Your task to perform on an android device: open a new tab in the chrome app Image 0: 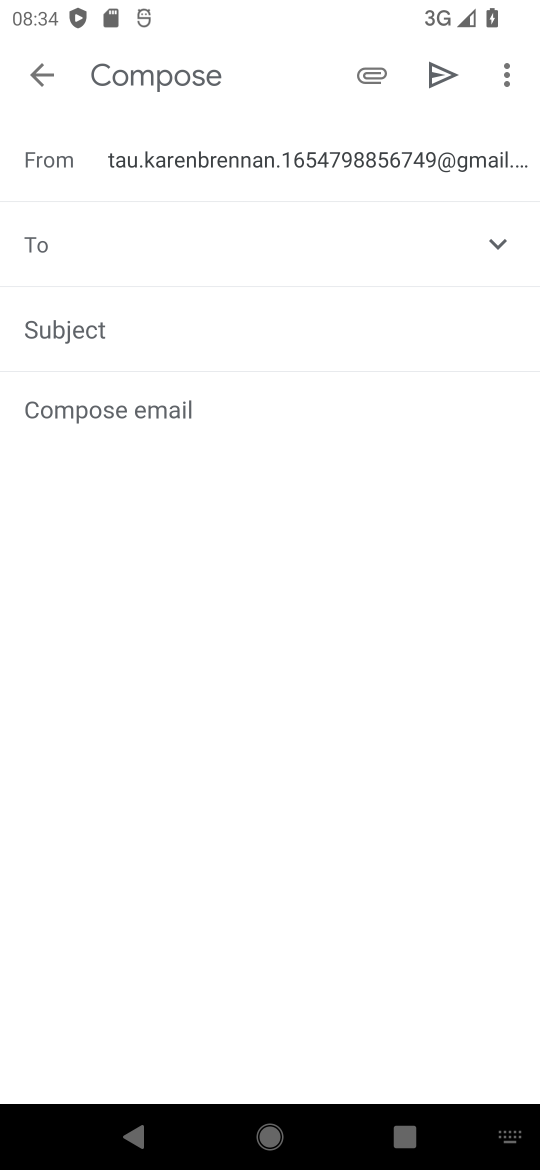
Step 0: press home button
Your task to perform on an android device: open a new tab in the chrome app Image 1: 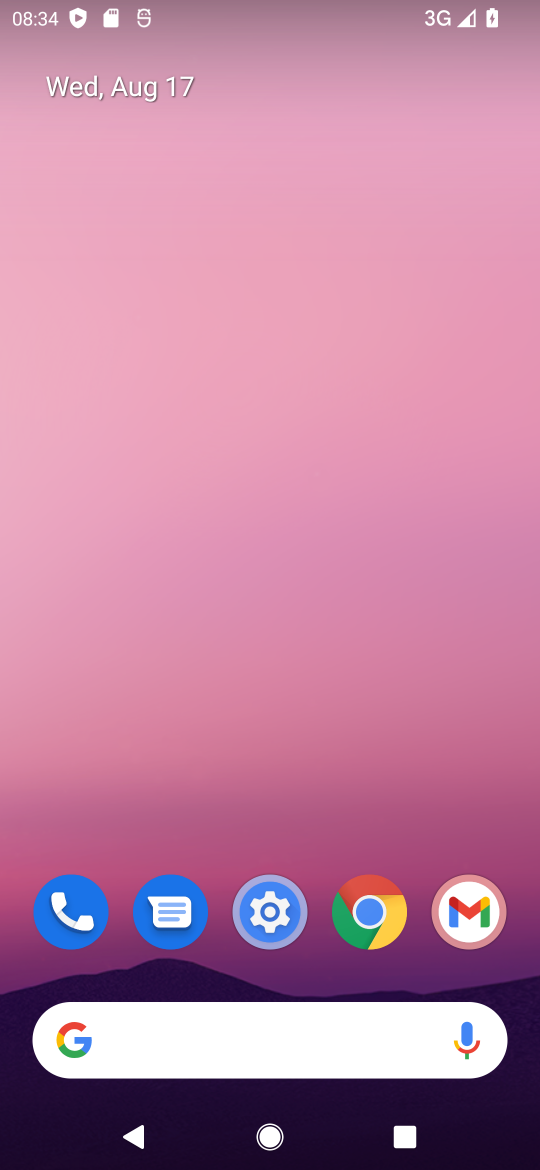
Step 1: click (372, 924)
Your task to perform on an android device: open a new tab in the chrome app Image 2: 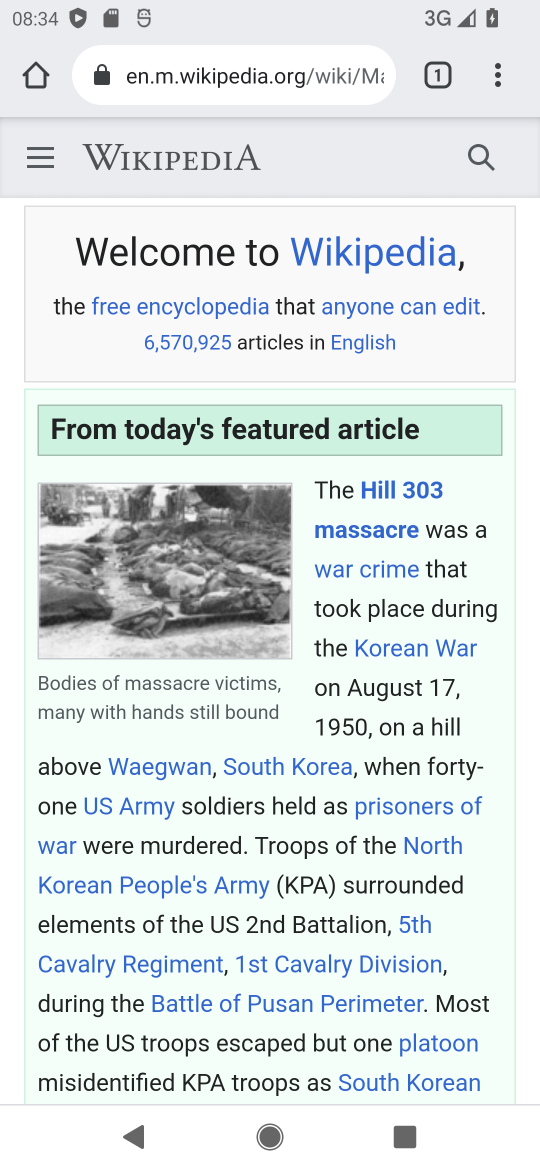
Step 2: click (491, 90)
Your task to perform on an android device: open a new tab in the chrome app Image 3: 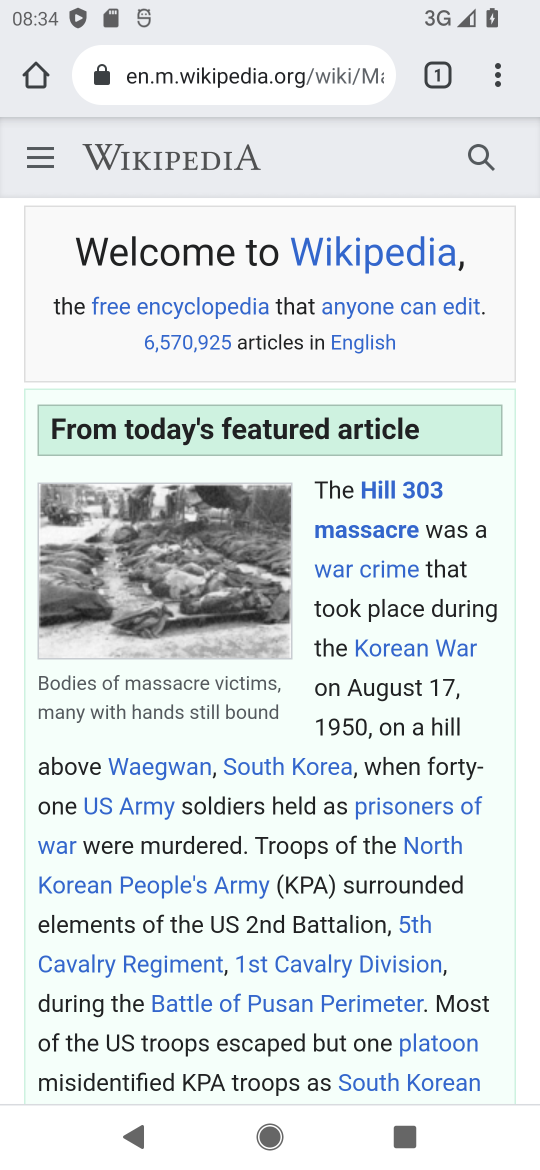
Step 3: click (486, 77)
Your task to perform on an android device: open a new tab in the chrome app Image 4: 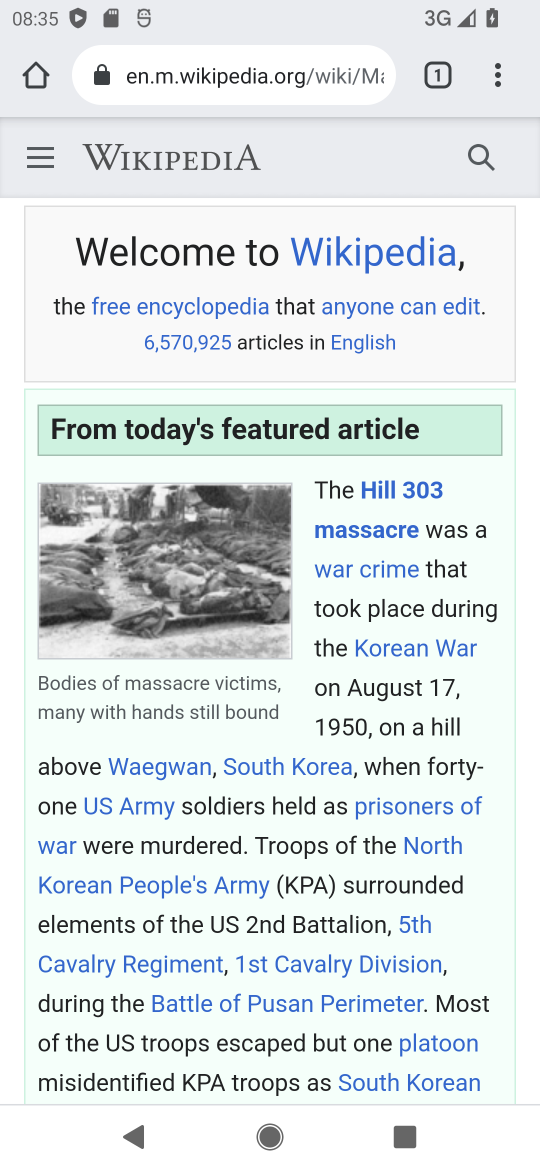
Step 4: click (494, 67)
Your task to perform on an android device: open a new tab in the chrome app Image 5: 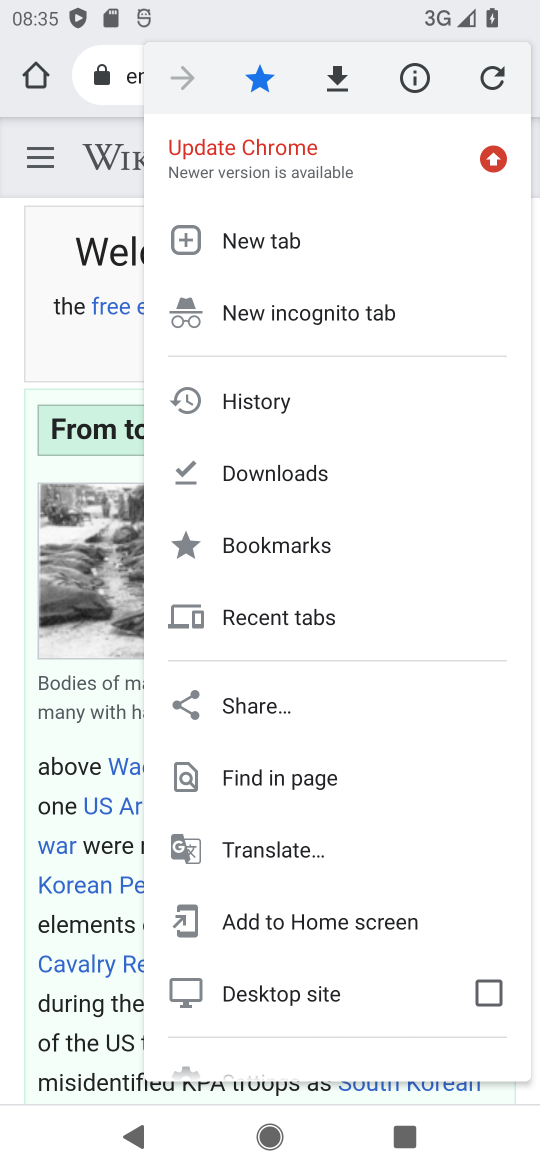
Step 5: click (273, 249)
Your task to perform on an android device: open a new tab in the chrome app Image 6: 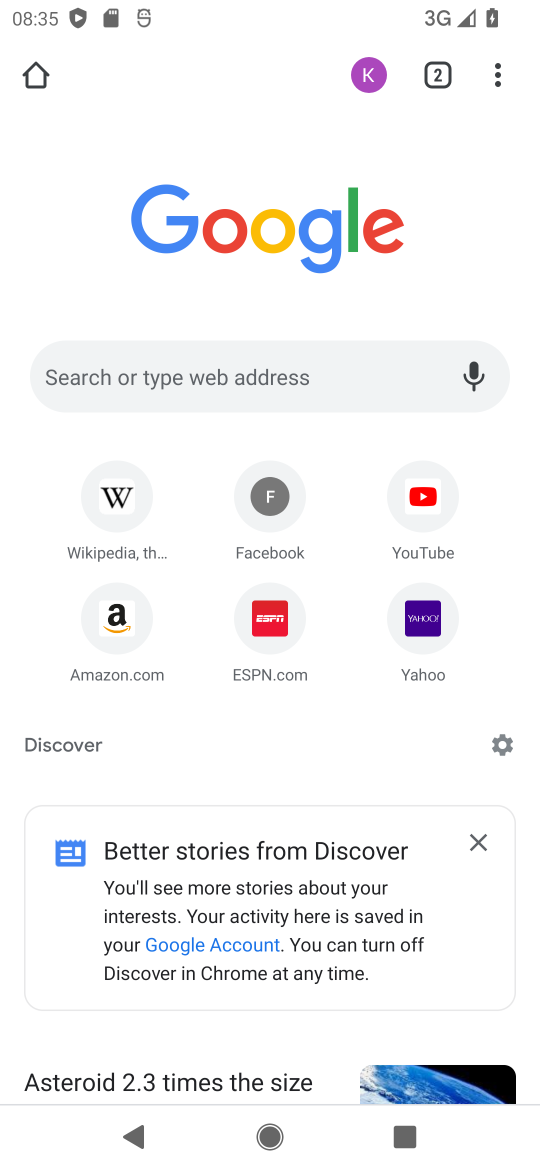
Step 6: task complete